Your task to perform on an android device: open app "Booking.com: Hotels and more" (install if not already installed) Image 0: 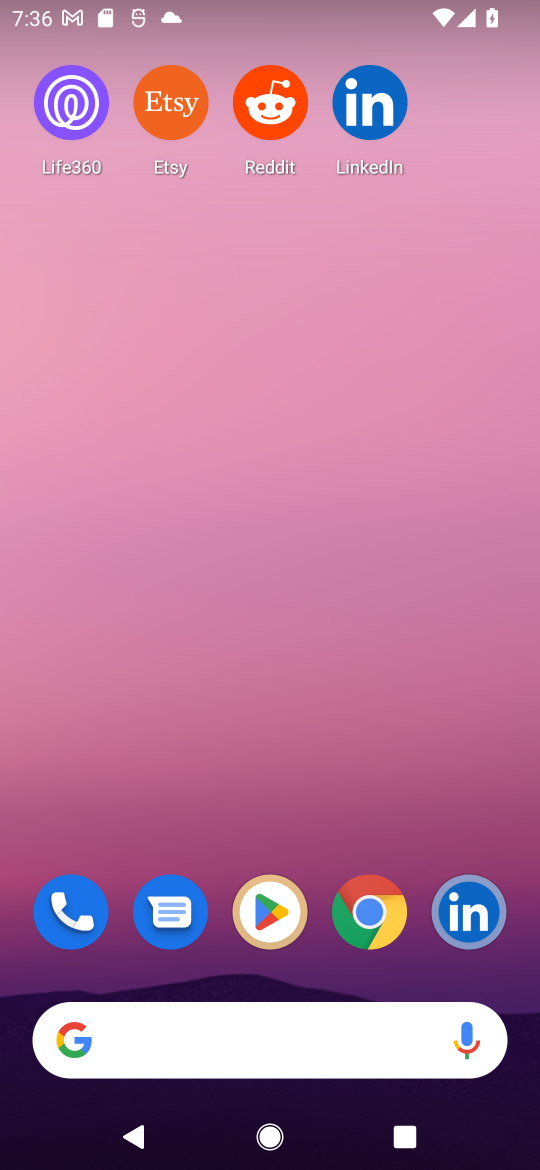
Step 0: drag from (523, 921) to (307, 65)
Your task to perform on an android device: open app "Booking.com: Hotels and more" (install if not already installed) Image 1: 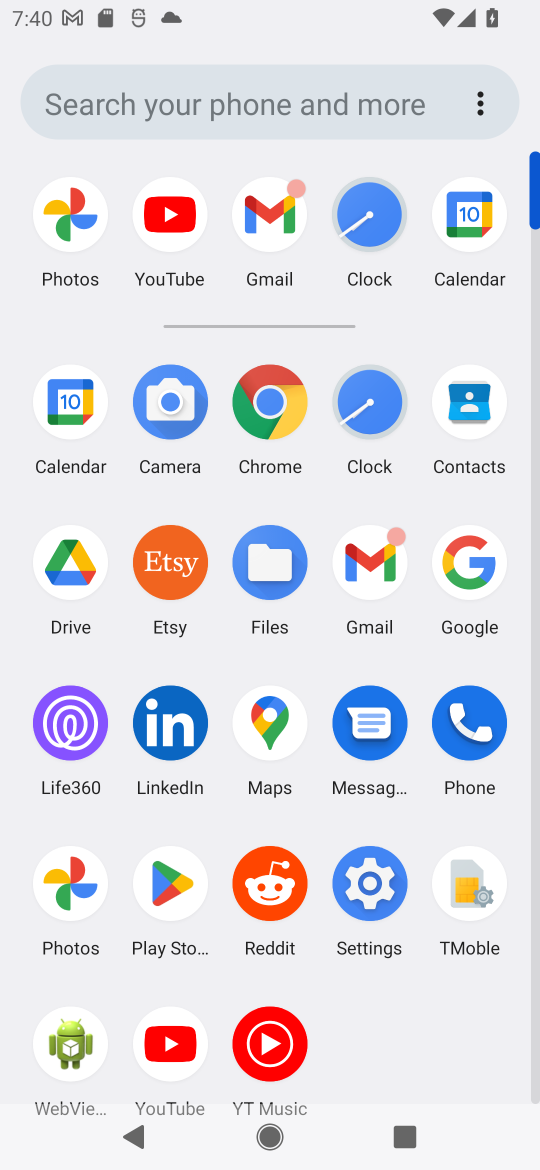
Step 1: click (191, 883)
Your task to perform on an android device: open app "Booking.com: Hotels and more" (install if not already installed) Image 2: 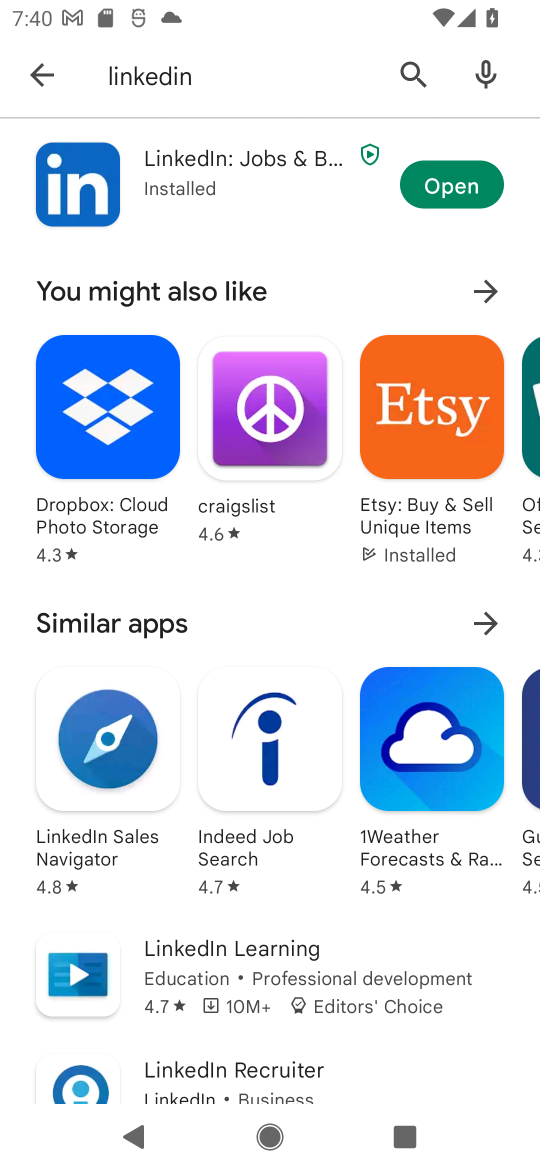
Step 2: press back button
Your task to perform on an android device: open app "Booking.com: Hotels and more" (install if not already installed) Image 3: 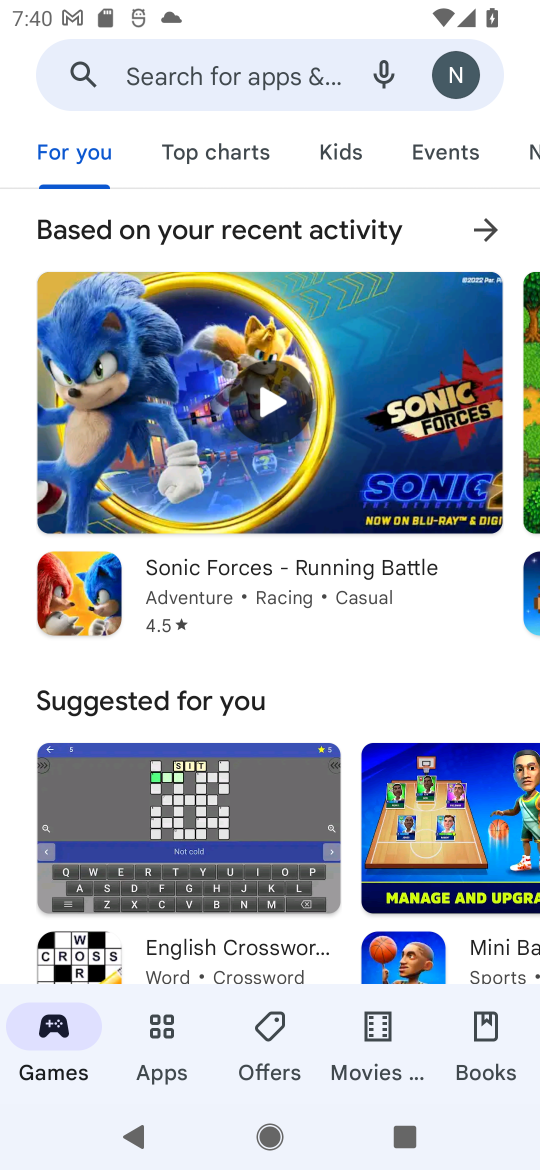
Step 3: click (201, 70)
Your task to perform on an android device: open app "Booking.com: Hotels and more" (install if not already installed) Image 4: 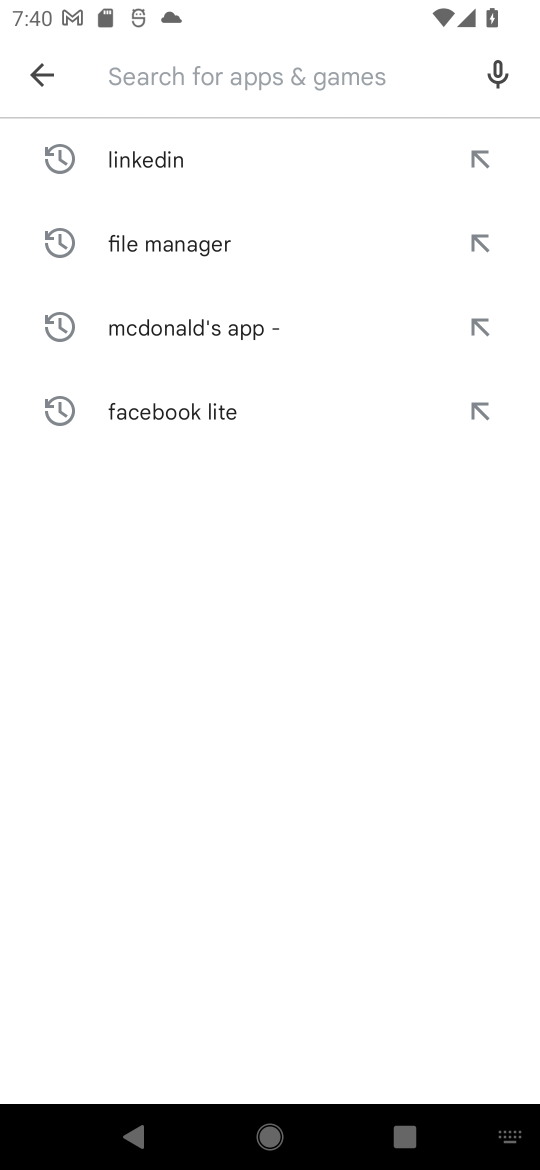
Step 4: type "Booking.com: Hotels and more"
Your task to perform on an android device: open app "Booking.com: Hotels and more" (install if not already installed) Image 5: 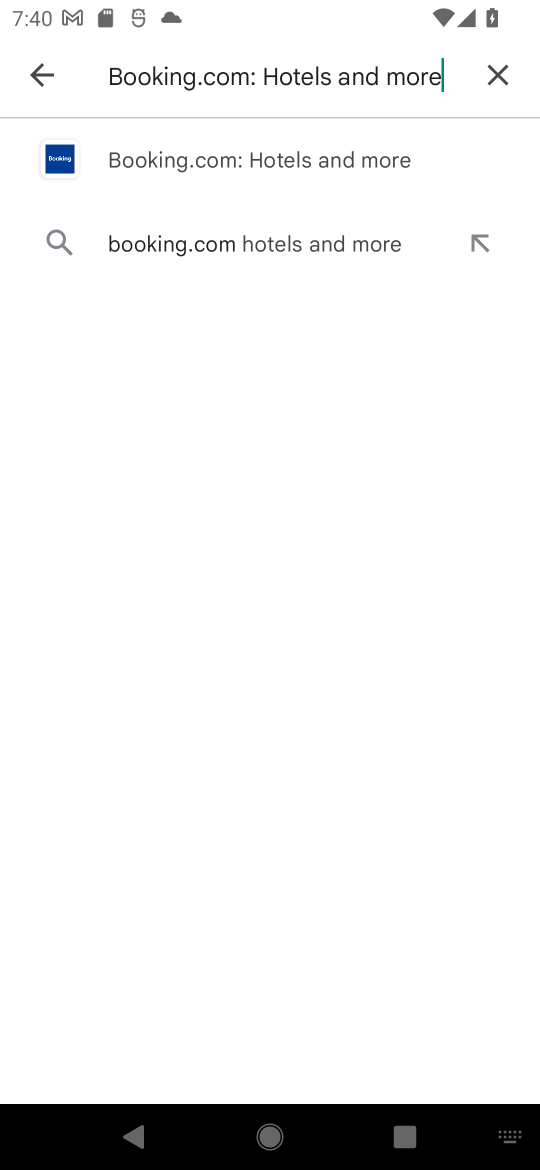
Step 5: click (219, 135)
Your task to perform on an android device: open app "Booking.com: Hotels and more" (install if not already installed) Image 6: 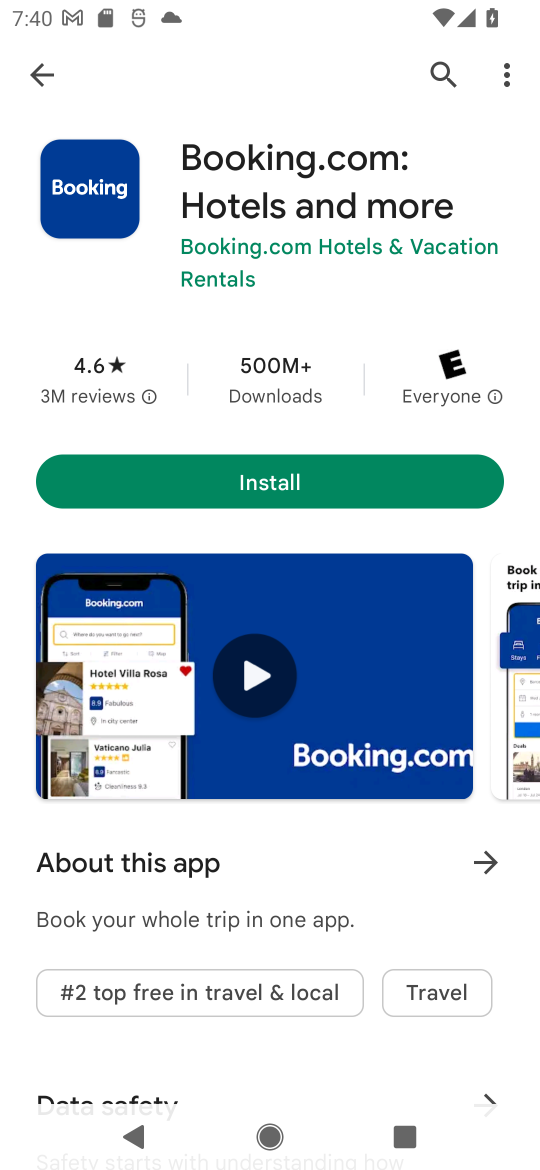
Step 6: task complete